Your task to perform on an android device: Open Google Maps and go to "Timeline" Image 0: 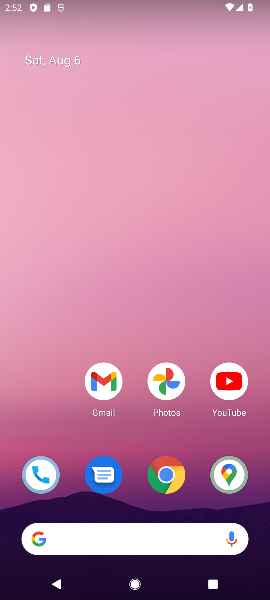
Step 0: click (239, 471)
Your task to perform on an android device: Open Google Maps and go to "Timeline" Image 1: 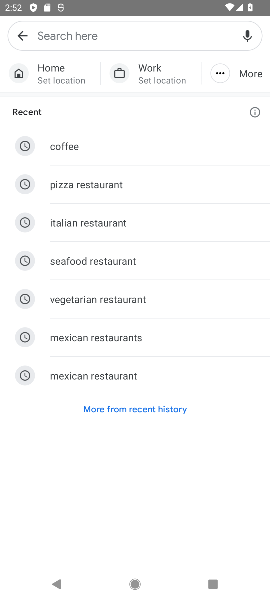
Step 1: click (20, 35)
Your task to perform on an android device: Open Google Maps and go to "Timeline" Image 2: 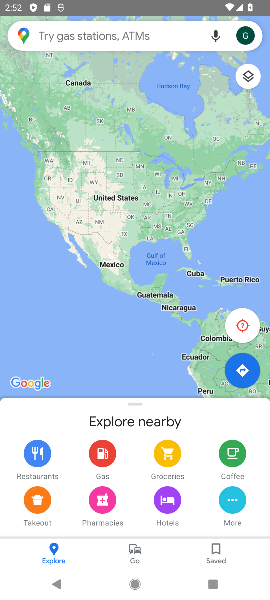
Step 2: click (62, 46)
Your task to perform on an android device: Open Google Maps and go to "Timeline" Image 3: 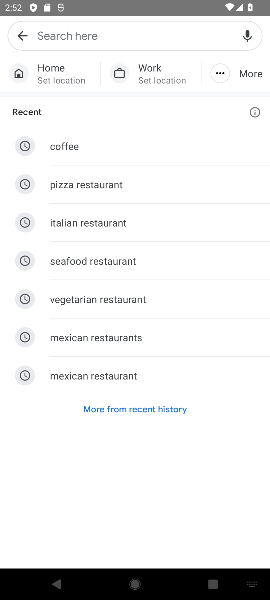
Step 3: click (26, 30)
Your task to perform on an android device: Open Google Maps and go to "Timeline" Image 4: 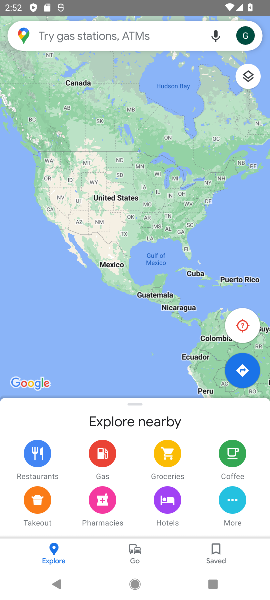
Step 4: click (55, 31)
Your task to perform on an android device: Open Google Maps and go to "Timeline" Image 5: 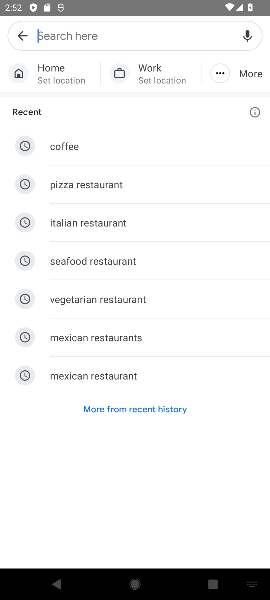
Step 5: task complete